Your task to perform on an android device: Open the phone app and click the voicemail tab. Image 0: 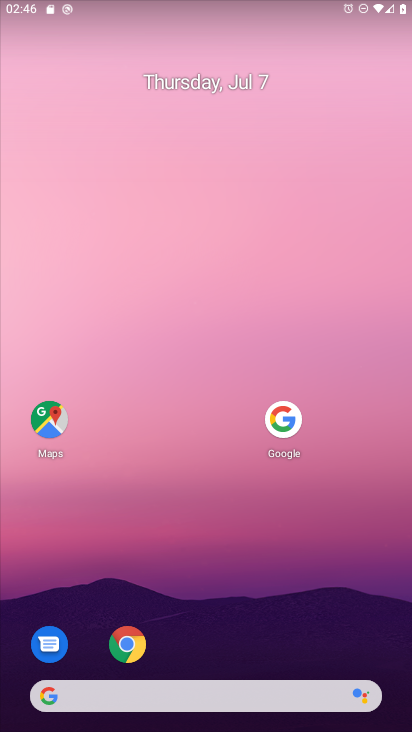
Step 0: drag from (127, 688) to (257, 26)
Your task to perform on an android device: Open the phone app and click the voicemail tab. Image 1: 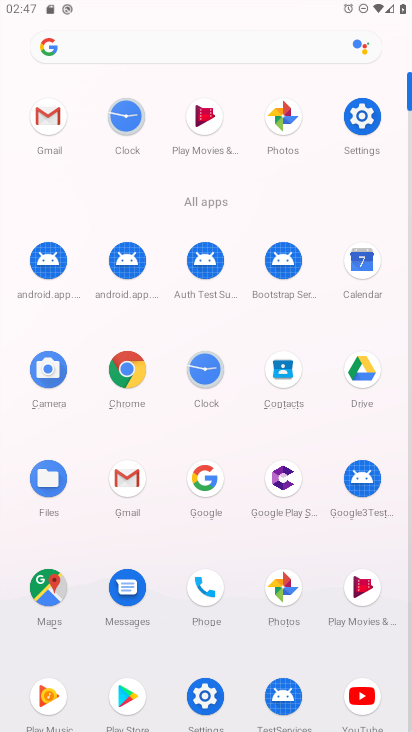
Step 1: click (209, 590)
Your task to perform on an android device: Open the phone app and click the voicemail tab. Image 2: 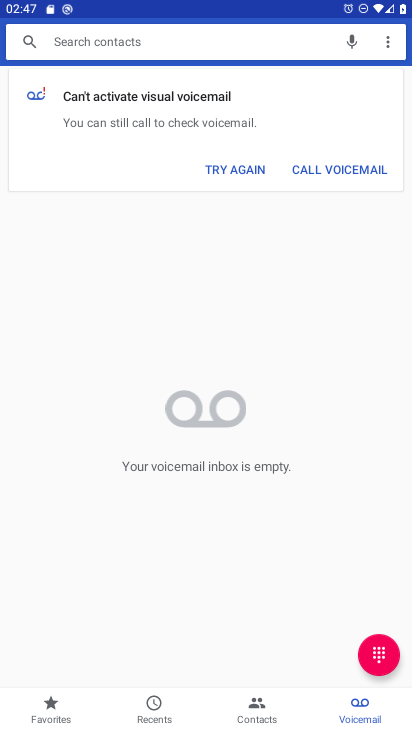
Step 2: click (361, 703)
Your task to perform on an android device: Open the phone app and click the voicemail tab. Image 3: 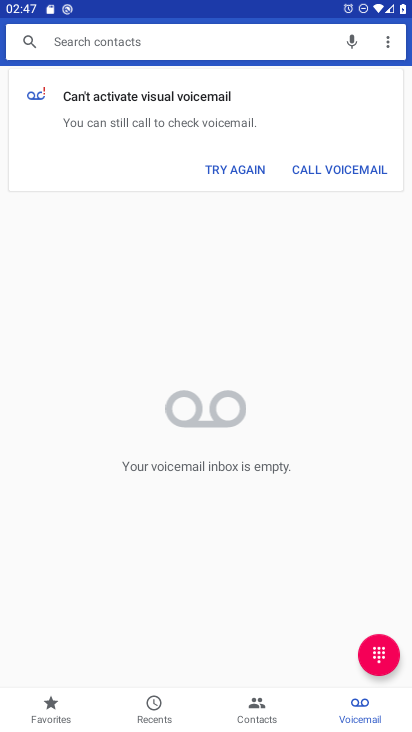
Step 3: task complete